Your task to perform on an android device: Go to wifi settings Image 0: 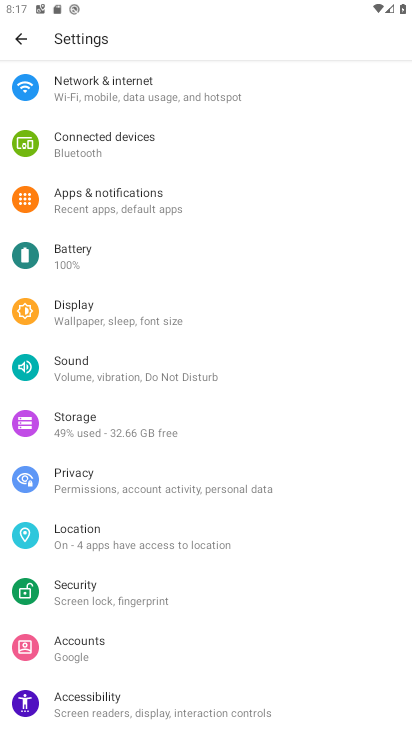
Step 0: click (67, 94)
Your task to perform on an android device: Go to wifi settings Image 1: 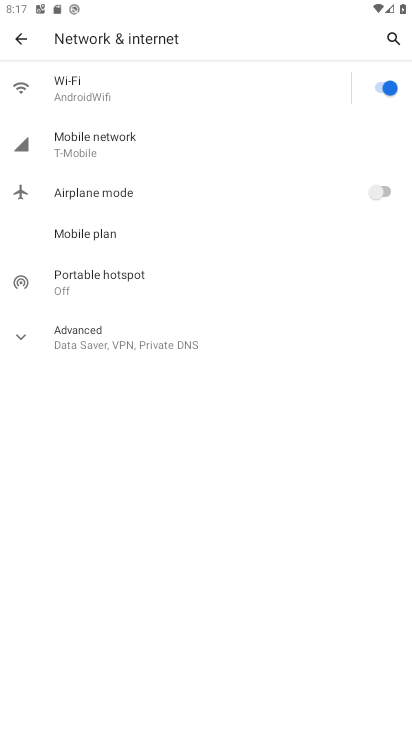
Step 1: click (67, 97)
Your task to perform on an android device: Go to wifi settings Image 2: 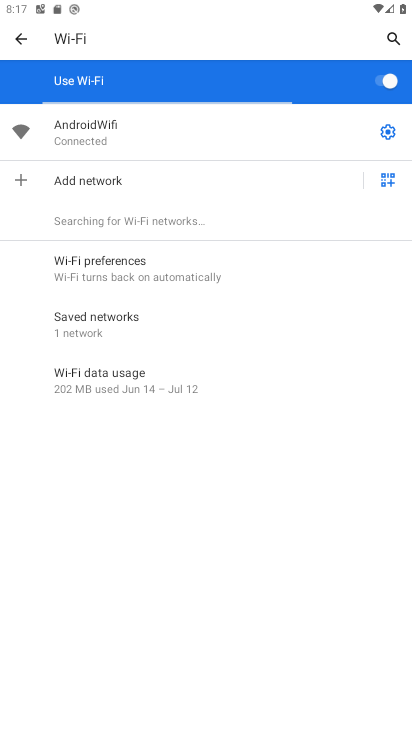
Step 2: task complete